Your task to perform on an android device: check the backup settings in the google photos Image 0: 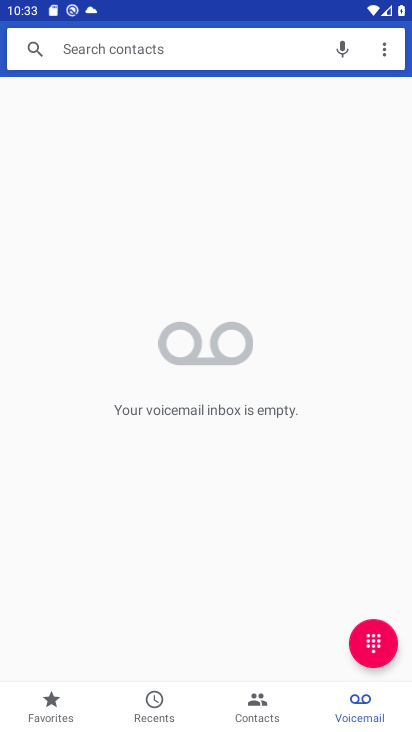
Step 0: press home button
Your task to perform on an android device: check the backup settings in the google photos Image 1: 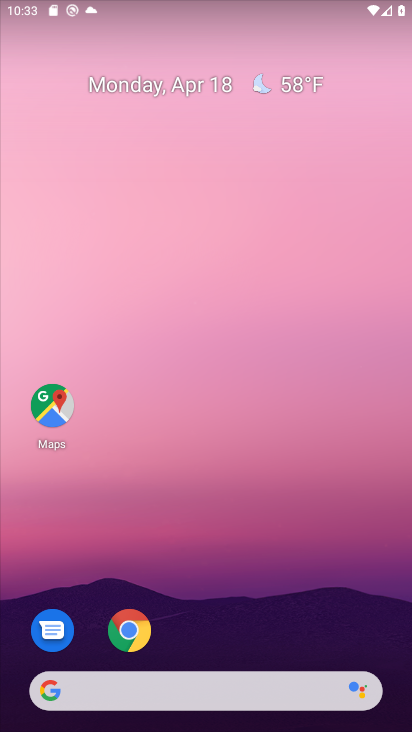
Step 1: drag from (221, 667) to (221, 29)
Your task to perform on an android device: check the backup settings in the google photos Image 2: 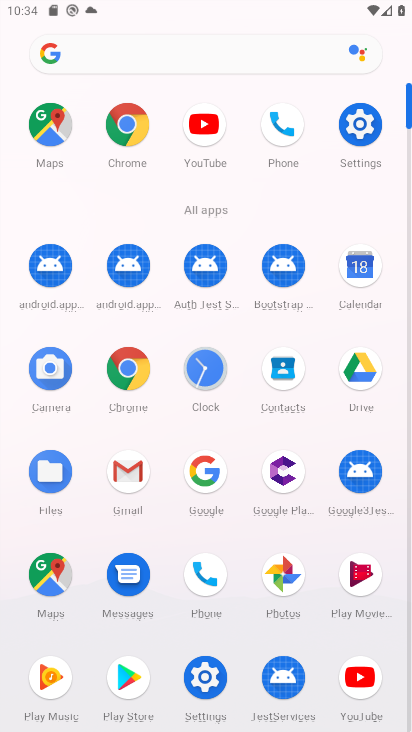
Step 2: click (275, 574)
Your task to perform on an android device: check the backup settings in the google photos Image 3: 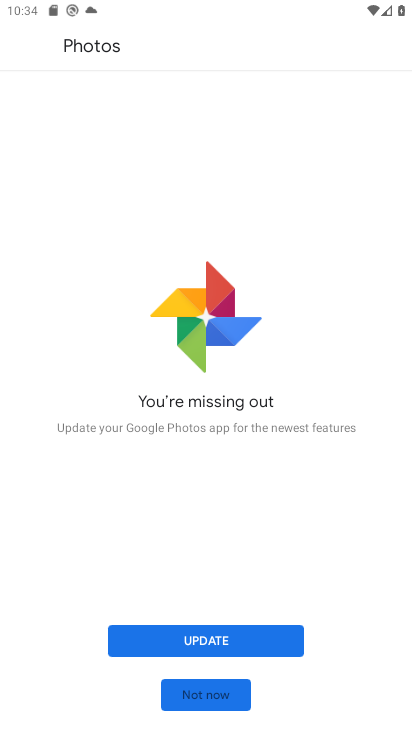
Step 3: click (205, 702)
Your task to perform on an android device: check the backup settings in the google photos Image 4: 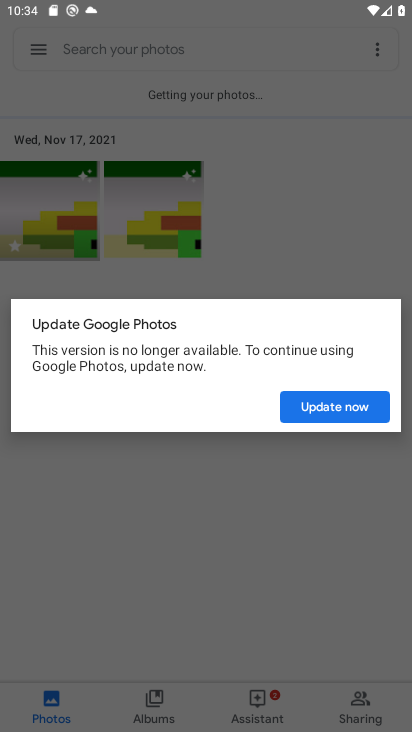
Step 4: click (272, 527)
Your task to perform on an android device: check the backup settings in the google photos Image 5: 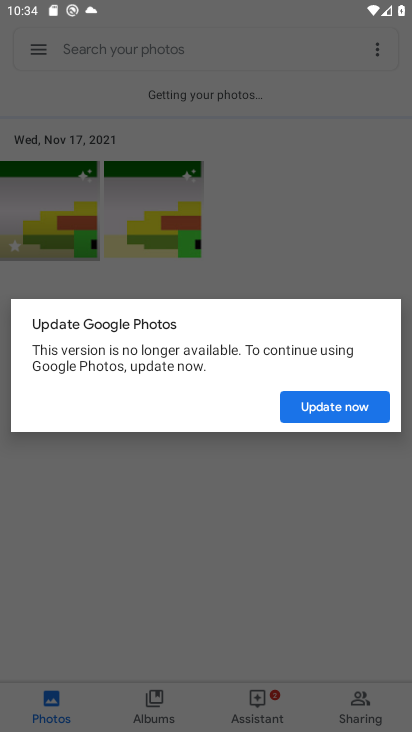
Step 5: click (330, 426)
Your task to perform on an android device: check the backup settings in the google photos Image 6: 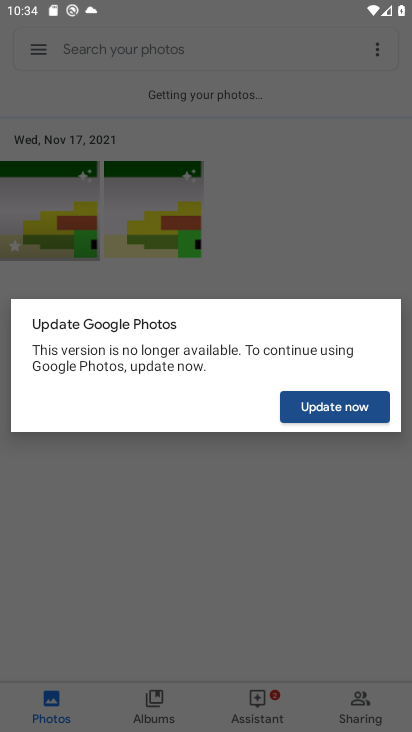
Step 6: click (330, 420)
Your task to perform on an android device: check the backup settings in the google photos Image 7: 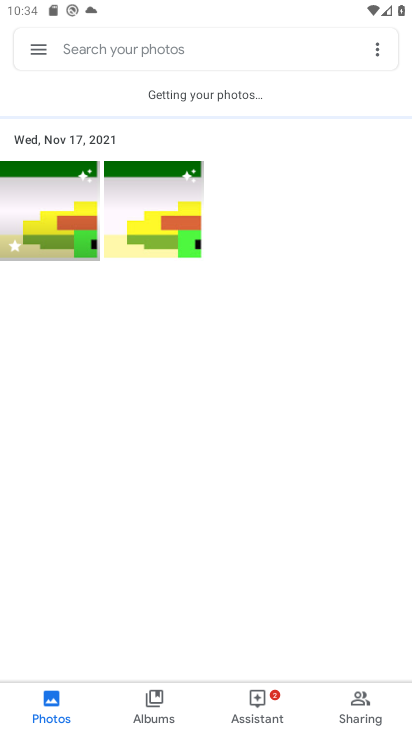
Step 7: click (34, 44)
Your task to perform on an android device: check the backup settings in the google photos Image 8: 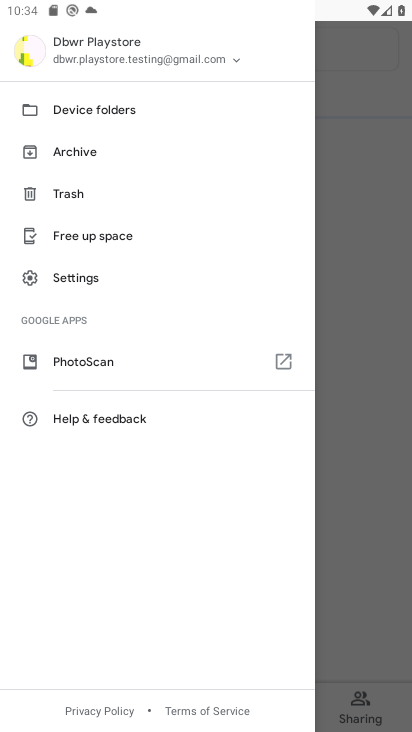
Step 8: click (77, 283)
Your task to perform on an android device: check the backup settings in the google photos Image 9: 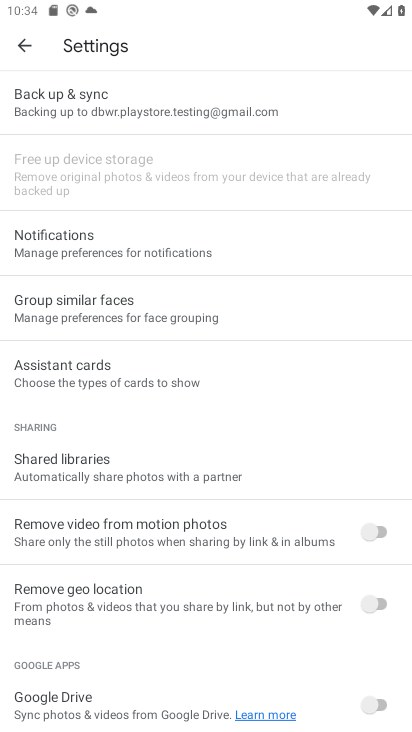
Step 9: click (122, 127)
Your task to perform on an android device: check the backup settings in the google photos Image 10: 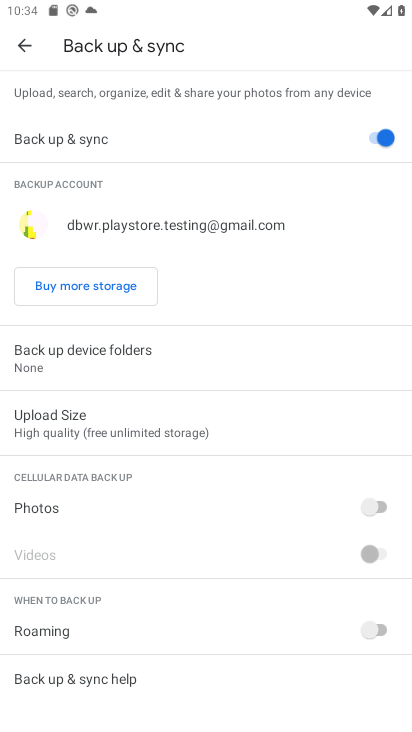
Step 10: task complete